Your task to perform on an android device: change keyboard looks Image 0: 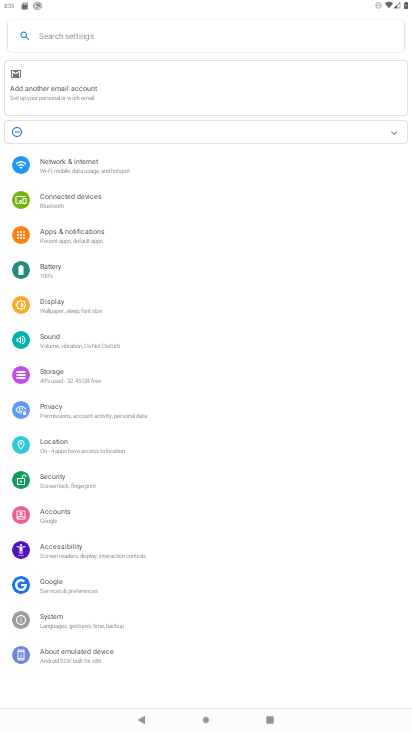
Step 0: click (46, 618)
Your task to perform on an android device: change keyboard looks Image 1: 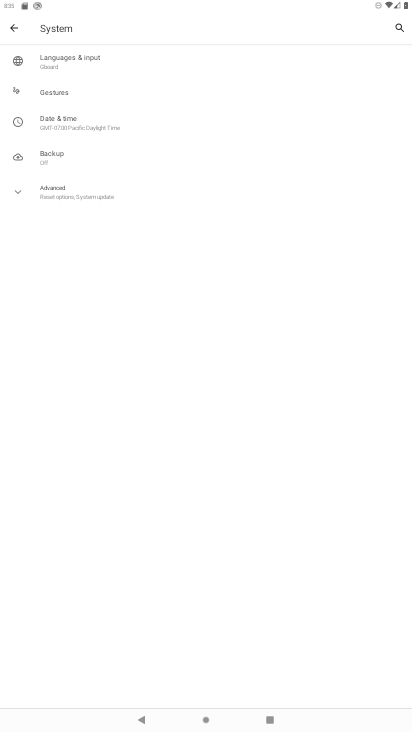
Step 1: click (91, 69)
Your task to perform on an android device: change keyboard looks Image 2: 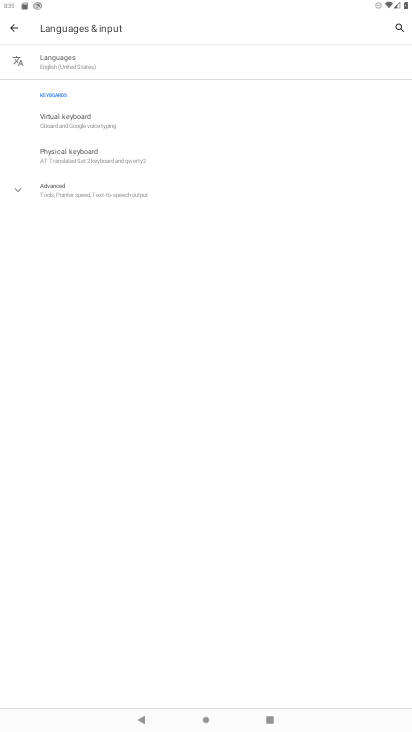
Step 2: click (98, 120)
Your task to perform on an android device: change keyboard looks Image 3: 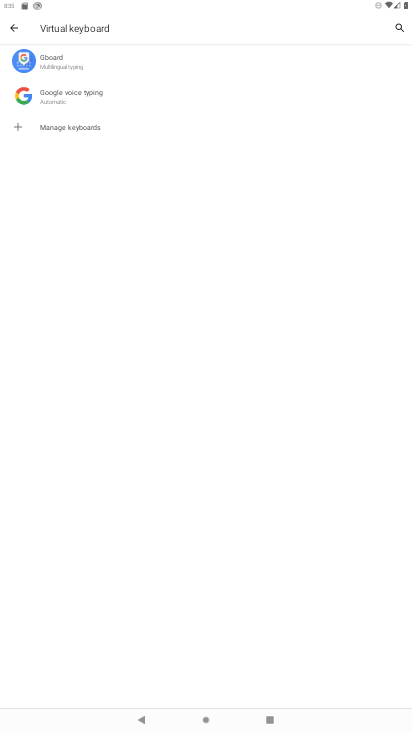
Step 3: click (83, 65)
Your task to perform on an android device: change keyboard looks Image 4: 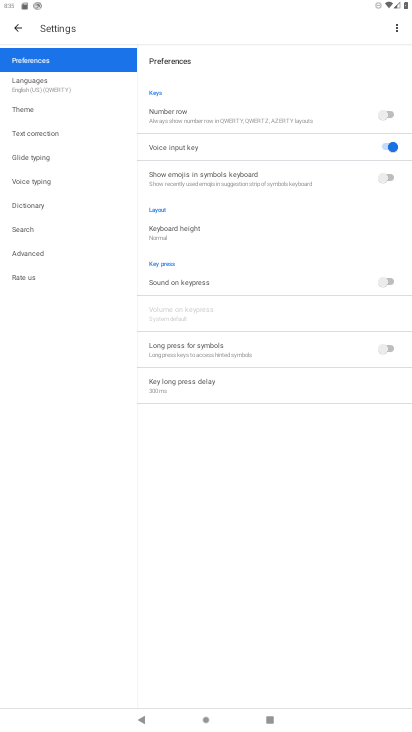
Step 4: click (60, 112)
Your task to perform on an android device: change keyboard looks Image 5: 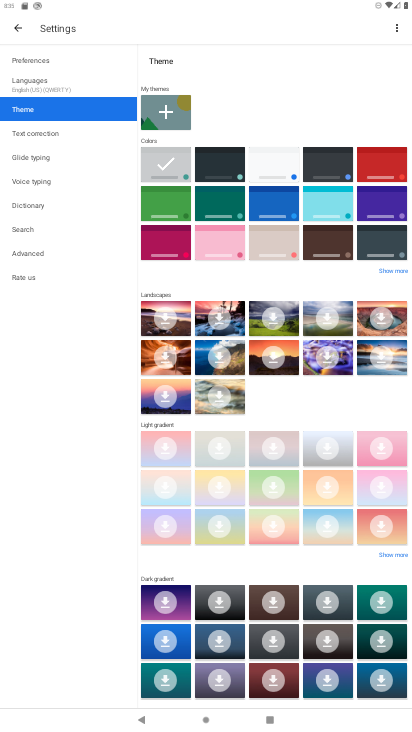
Step 5: click (388, 683)
Your task to perform on an android device: change keyboard looks Image 6: 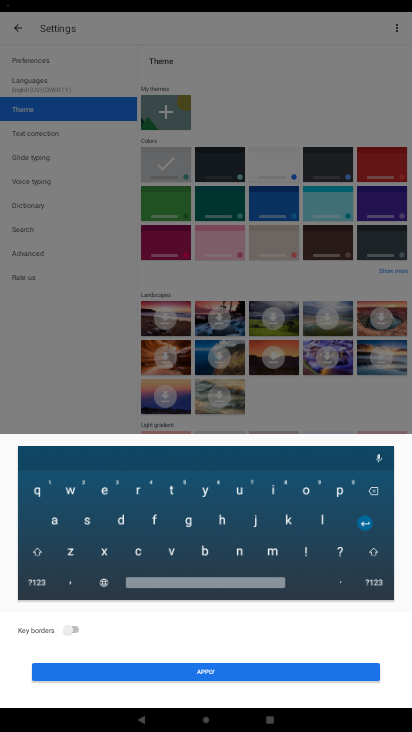
Step 6: click (290, 670)
Your task to perform on an android device: change keyboard looks Image 7: 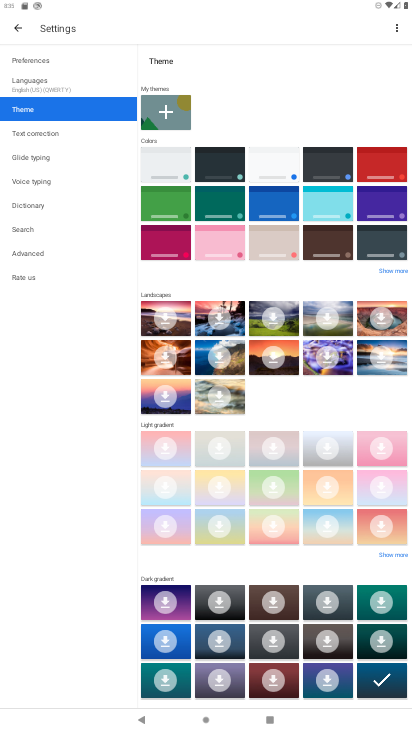
Step 7: task complete